Your task to perform on an android device: Go to location settings Image 0: 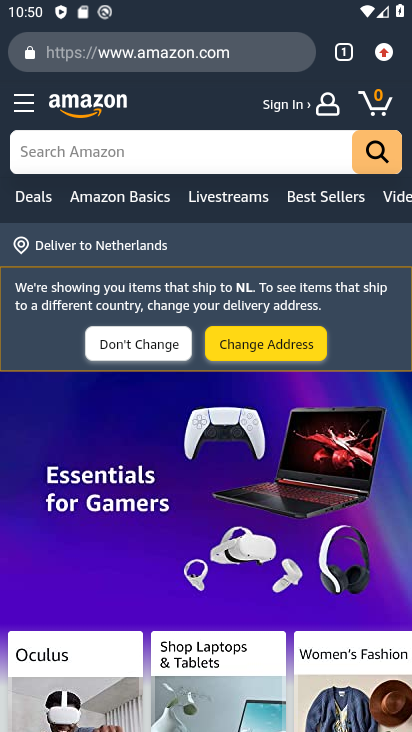
Step 0: press home button
Your task to perform on an android device: Go to location settings Image 1: 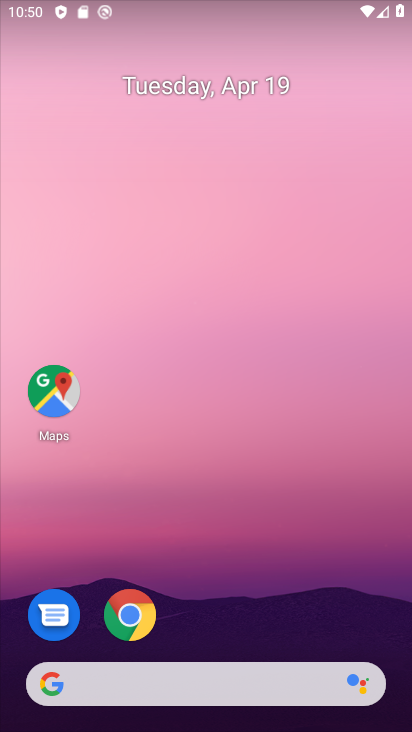
Step 1: drag from (198, 616) to (211, 179)
Your task to perform on an android device: Go to location settings Image 2: 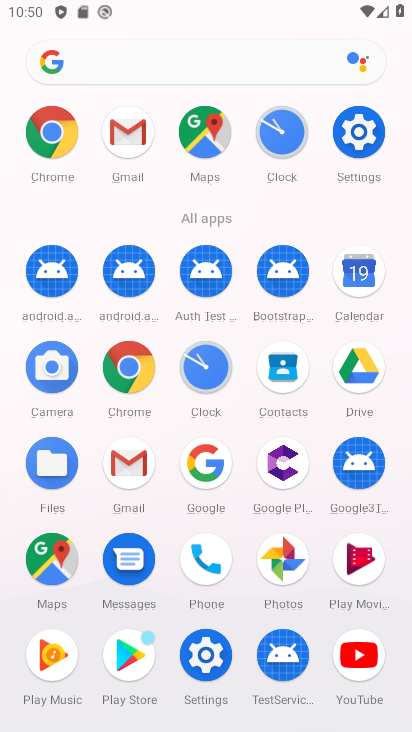
Step 2: click (339, 135)
Your task to perform on an android device: Go to location settings Image 3: 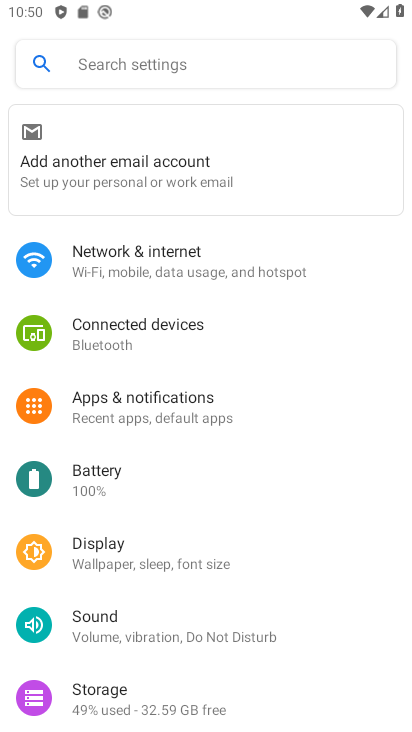
Step 3: drag from (147, 577) to (159, 413)
Your task to perform on an android device: Go to location settings Image 4: 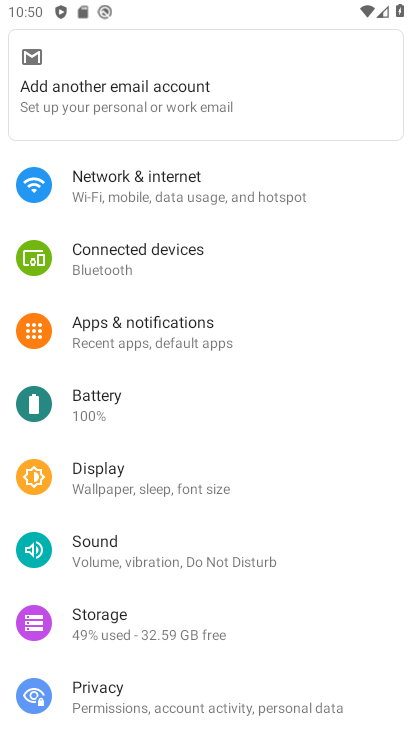
Step 4: drag from (176, 388) to (208, 211)
Your task to perform on an android device: Go to location settings Image 5: 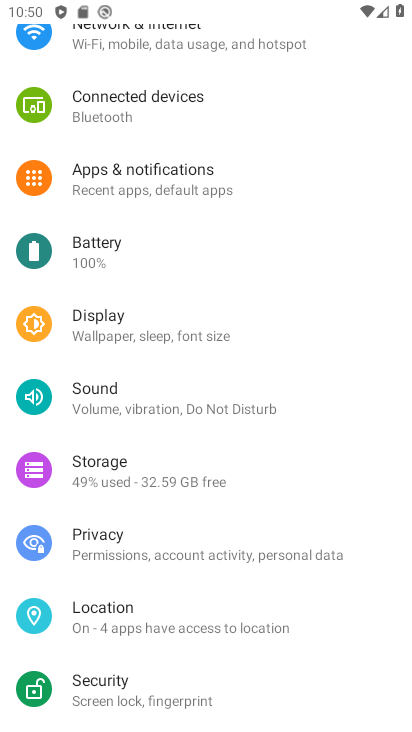
Step 5: click (107, 603)
Your task to perform on an android device: Go to location settings Image 6: 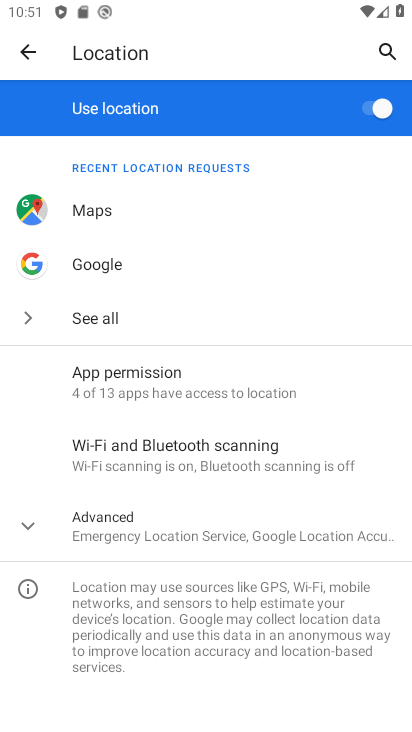
Step 6: task complete